Your task to perform on an android device: toggle sleep mode Image 0: 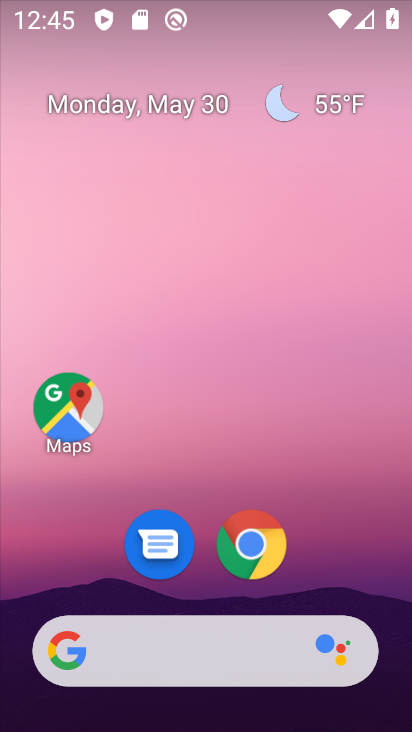
Step 0: drag from (340, 19) to (335, 578)
Your task to perform on an android device: toggle sleep mode Image 1: 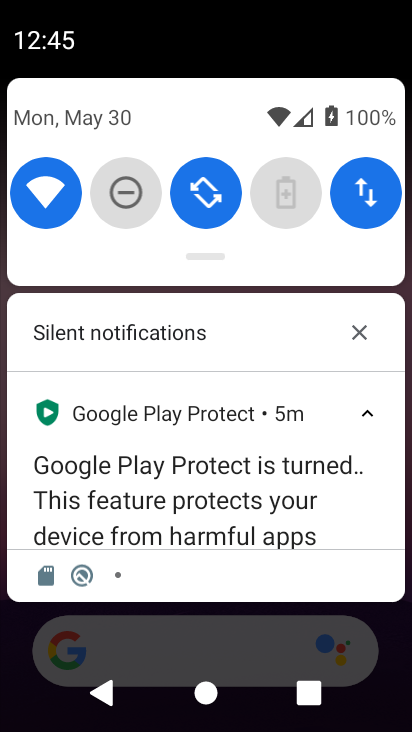
Step 1: drag from (246, 248) to (245, 731)
Your task to perform on an android device: toggle sleep mode Image 2: 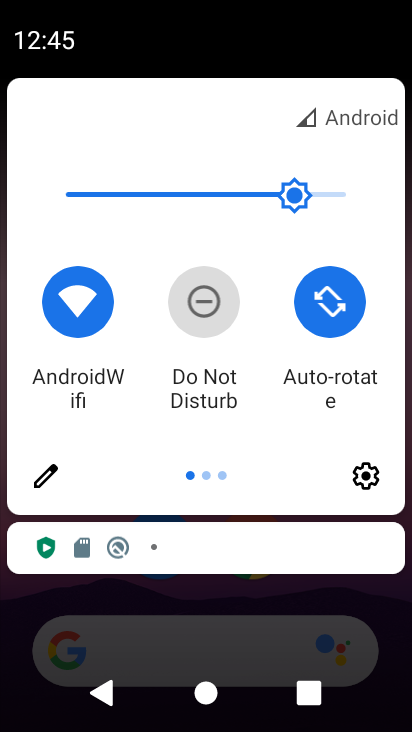
Step 2: click (47, 480)
Your task to perform on an android device: toggle sleep mode Image 3: 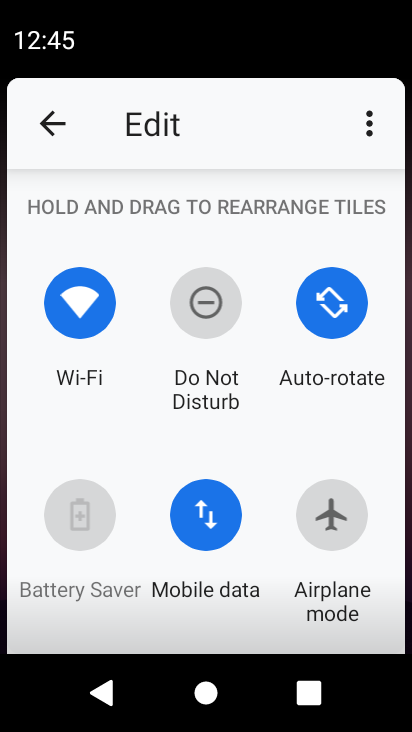
Step 3: task complete